Your task to perform on an android device: Show the shopping cart on costco. Add razer huntsman to the cart on costco, then select checkout. Image 0: 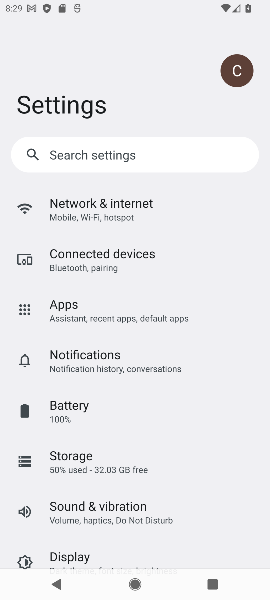
Step 0: press home button
Your task to perform on an android device: Show the shopping cart on costco. Add razer huntsman to the cart on costco, then select checkout. Image 1: 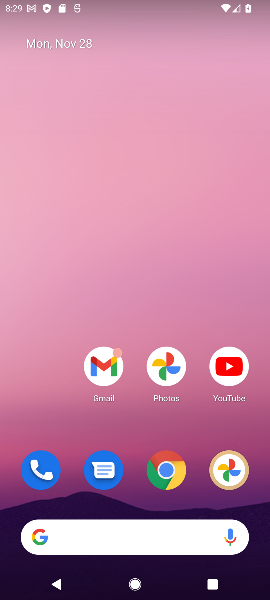
Step 1: drag from (130, 456) to (131, 243)
Your task to perform on an android device: Show the shopping cart on costco. Add razer huntsman to the cart on costco, then select checkout. Image 2: 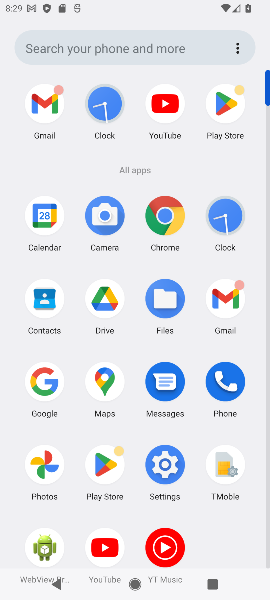
Step 2: click (43, 388)
Your task to perform on an android device: Show the shopping cart on costco. Add razer huntsman to the cart on costco, then select checkout. Image 3: 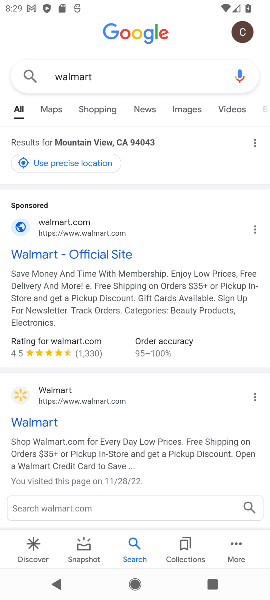
Step 3: click (115, 72)
Your task to perform on an android device: Show the shopping cart on costco. Add razer huntsman to the cart on costco, then select checkout. Image 4: 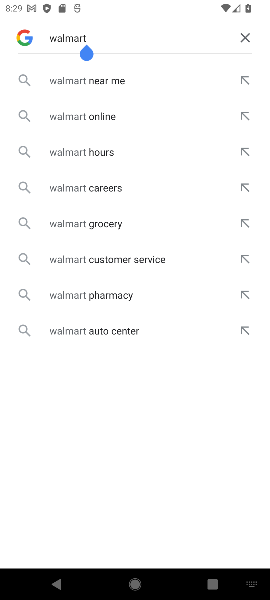
Step 4: click (251, 39)
Your task to perform on an android device: Show the shopping cart on costco. Add razer huntsman to the cart on costco, then select checkout. Image 5: 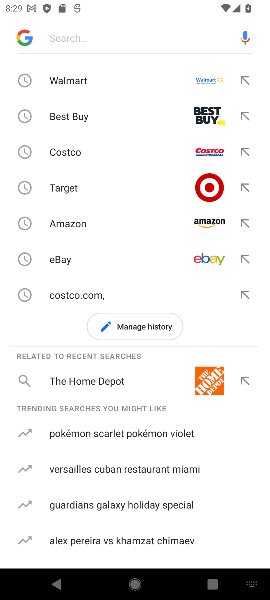
Step 5: click (135, 151)
Your task to perform on an android device: Show the shopping cart on costco. Add razer huntsman to the cart on costco, then select checkout. Image 6: 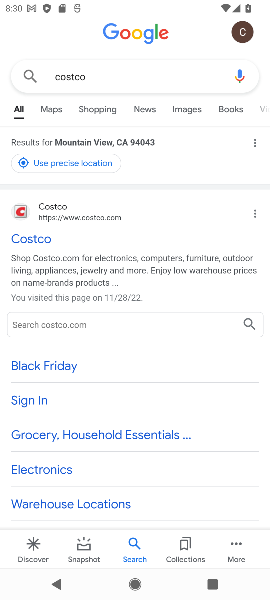
Step 6: click (48, 236)
Your task to perform on an android device: Show the shopping cart on costco. Add razer huntsman to the cart on costco, then select checkout. Image 7: 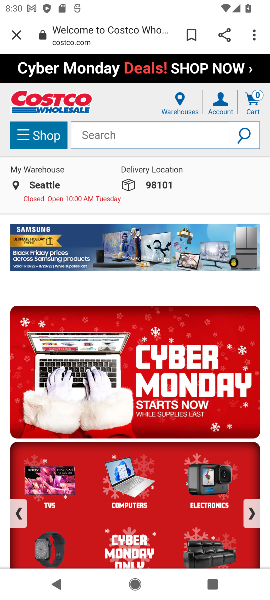
Step 7: click (252, 99)
Your task to perform on an android device: Show the shopping cart on costco. Add razer huntsman to the cart on costco, then select checkout. Image 8: 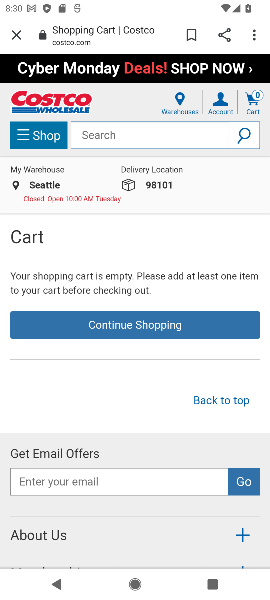
Step 8: click (155, 137)
Your task to perform on an android device: Show the shopping cart on costco. Add razer huntsman to the cart on costco, then select checkout. Image 9: 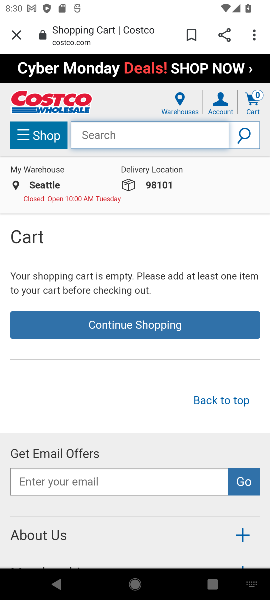
Step 9: type "razer huntsman"
Your task to perform on an android device: Show the shopping cart on costco. Add razer huntsman to the cart on costco, then select checkout. Image 10: 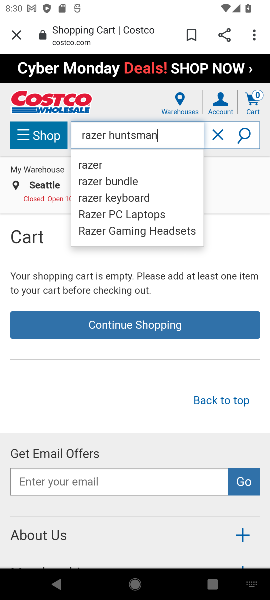
Step 10: click (245, 137)
Your task to perform on an android device: Show the shopping cart on costco. Add razer huntsman to the cart on costco, then select checkout. Image 11: 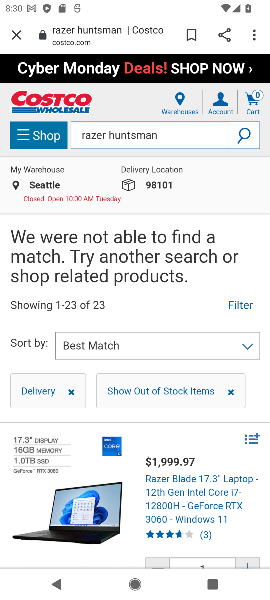
Step 11: click (198, 356)
Your task to perform on an android device: Show the shopping cart on costco. Add razer huntsman to the cart on costco, then select checkout. Image 12: 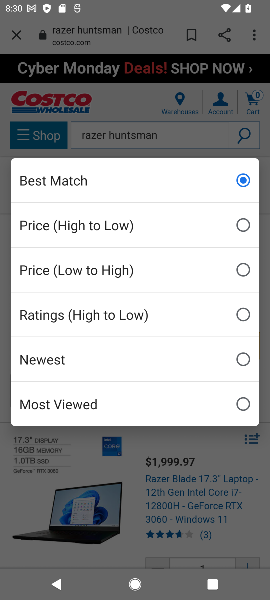
Step 12: click (19, 554)
Your task to perform on an android device: Show the shopping cart on costco. Add razer huntsman to the cart on costco, then select checkout. Image 13: 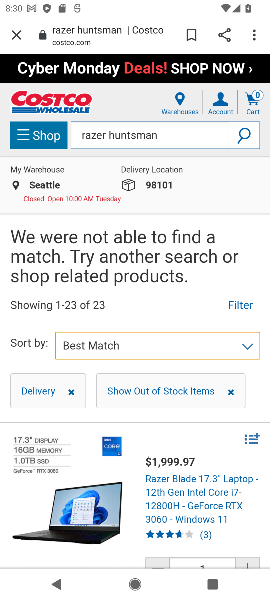
Step 13: drag from (114, 485) to (126, 315)
Your task to perform on an android device: Show the shopping cart on costco. Add razer huntsman to the cart on costco, then select checkout. Image 14: 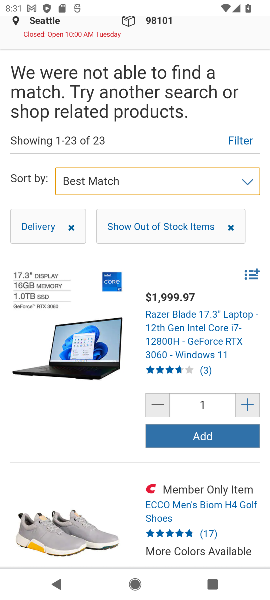
Step 14: click (202, 437)
Your task to perform on an android device: Show the shopping cart on costco. Add razer huntsman to the cart on costco, then select checkout. Image 15: 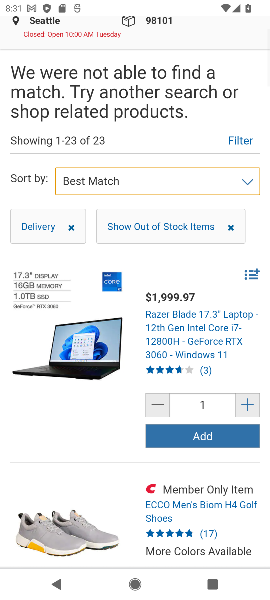
Step 15: drag from (186, 271) to (179, 373)
Your task to perform on an android device: Show the shopping cart on costco. Add razer huntsman to the cart on costco, then select checkout. Image 16: 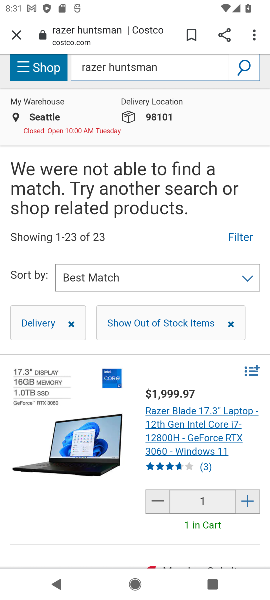
Step 16: drag from (156, 209) to (123, 360)
Your task to perform on an android device: Show the shopping cart on costco. Add razer huntsman to the cart on costco, then select checkout. Image 17: 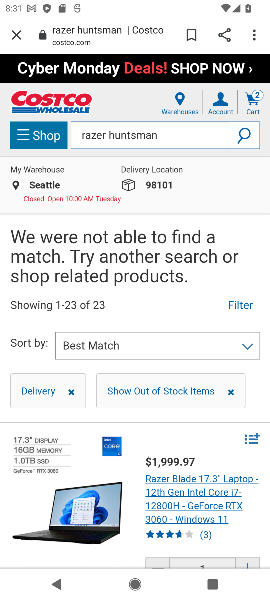
Step 17: click (260, 96)
Your task to perform on an android device: Show the shopping cart on costco. Add razer huntsman to the cart on costco, then select checkout. Image 18: 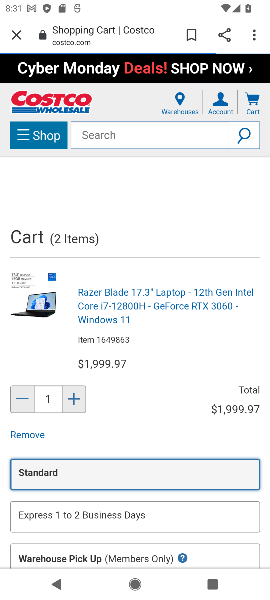
Step 18: click (252, 101)
Your task to perform on an android device: Show the shopping cart on costco. Add razer huntsman to the cart on costco, then select checkout. Image 19: 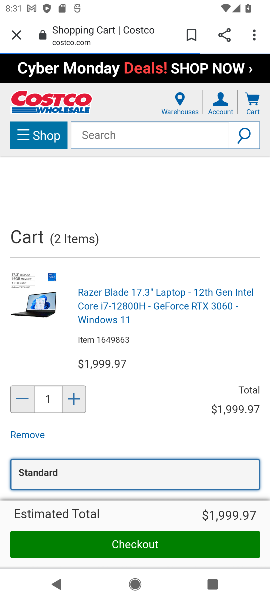
Step 19: click (131, 540)
Your task to perform on an android device: Show the shopping cart on costco. Add razer huntsman to the cart on costco, then select checkout. Image 20: 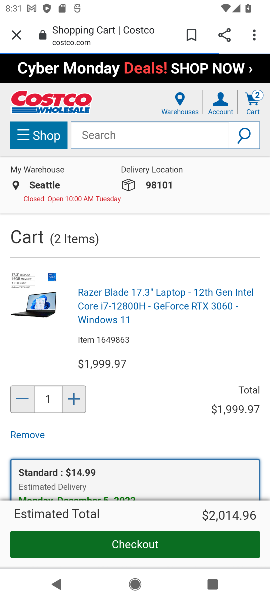
Step 20: task complete